Your task to perform on an android device: Open ESPN.com Image 0: 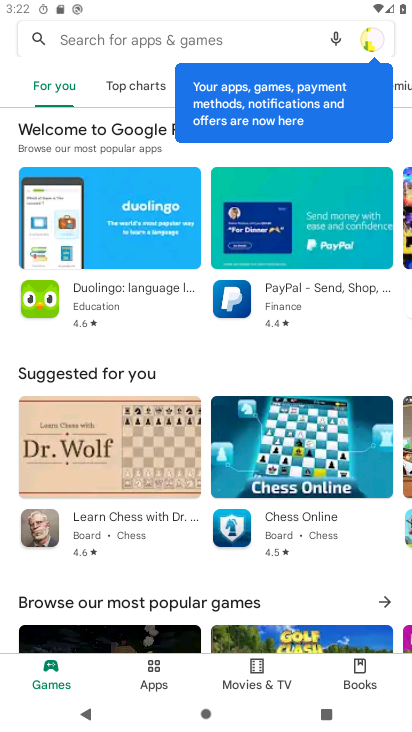
Step 0: press home button
Your task to perform on an android device: Open ESPN.com Image 1: 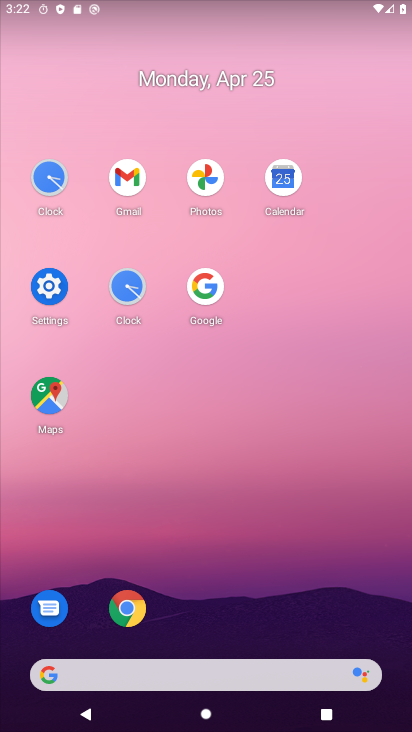
Step 1: click (130, 614)
Your task to perform on an android device: Open ESPN.com Image 2: 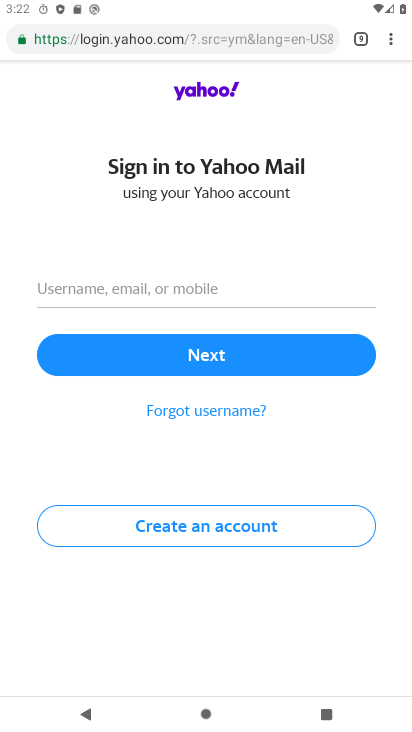
Step 2: click (360, 40)
Your task to perform on an android device: Open ESPN.com Image 3: 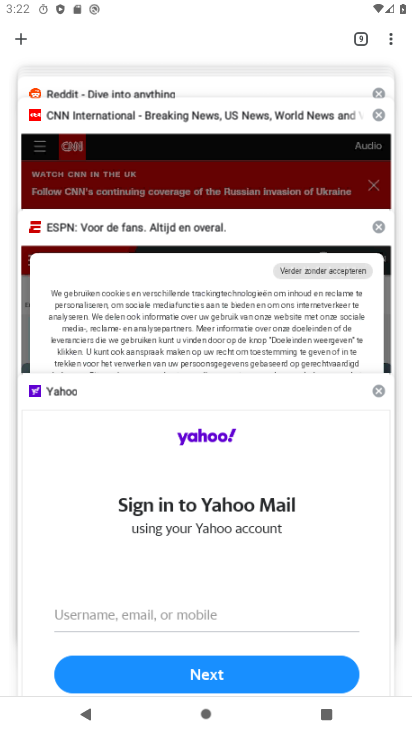
Step 3: click (19, 41)
Your task to perform on an android device: Open ESPN.com Image 4: 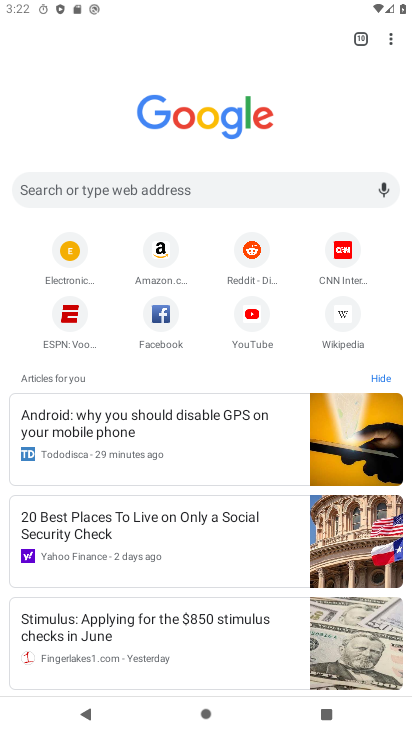
Step 4: click (71, 323)
Your task to perform on an android device: Open ESPN.com Image 5: 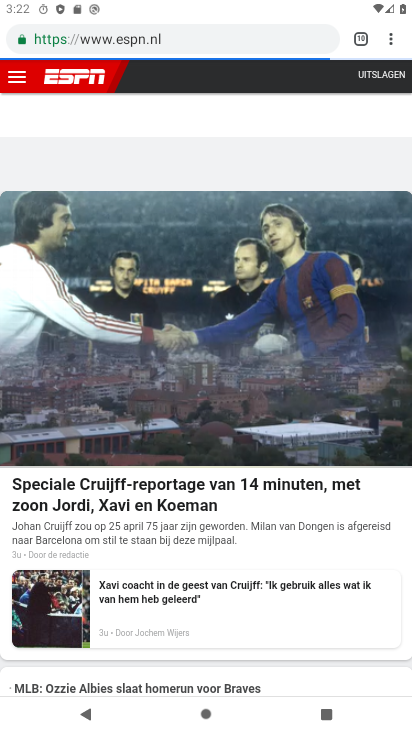
Step 5: task complete